Your task to perform on an android device: Open calendar and show me the third week of next month Image 0: 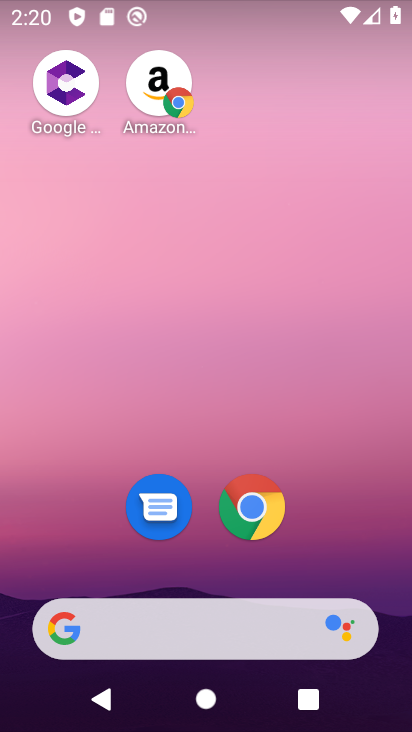
Step 0: drag from (227, 571) to (249, 105)
Your task to perform on an android device: Open calendar and show me the third week of next month Image 1: 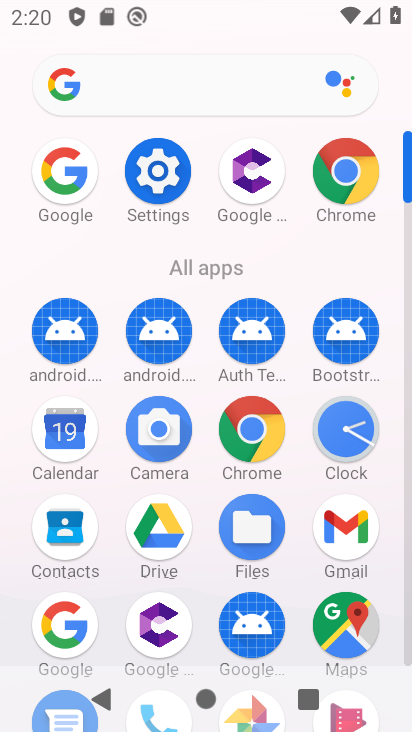
Step 1: click (74, 443)
Your task to perform on an android device: Open calendar and show me the third week of next month Image 2: 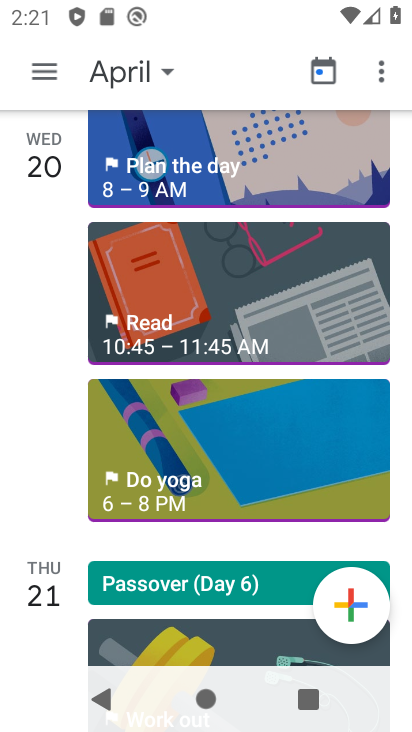
Step 2: click (133, 73)
Your task to perform on an android device: Open calendar and show me the third week of next month Image 3: 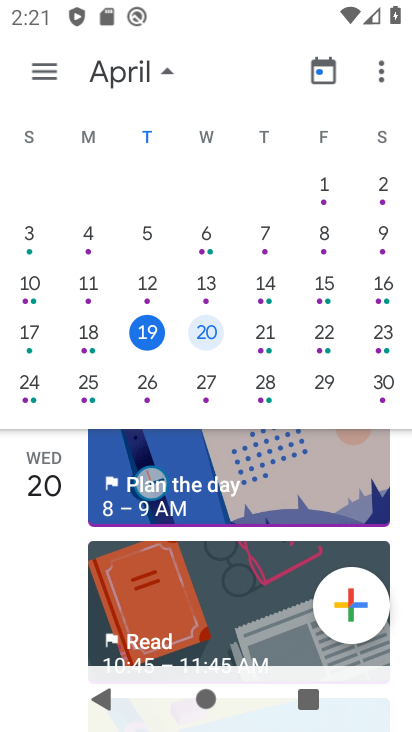
Step 3: drag from (395, 275) to (9, 238)
Your task to perform on an android device: Open calendar and show me the third week of next month Image 4: 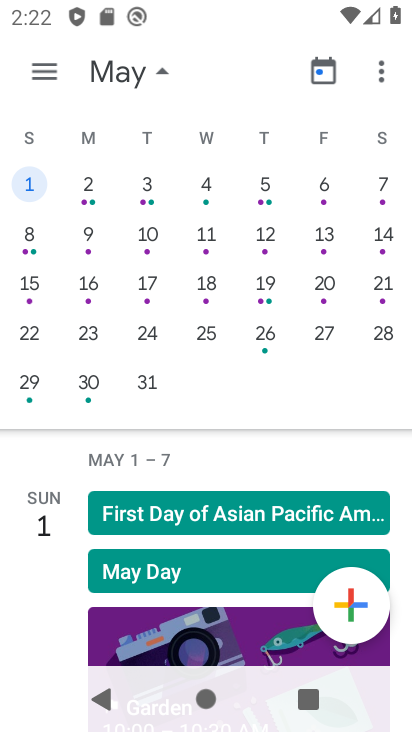
Step 4: click (53, 77)
Your task to perform on an android device: Open calendar and show me the third week of next month Image 5: 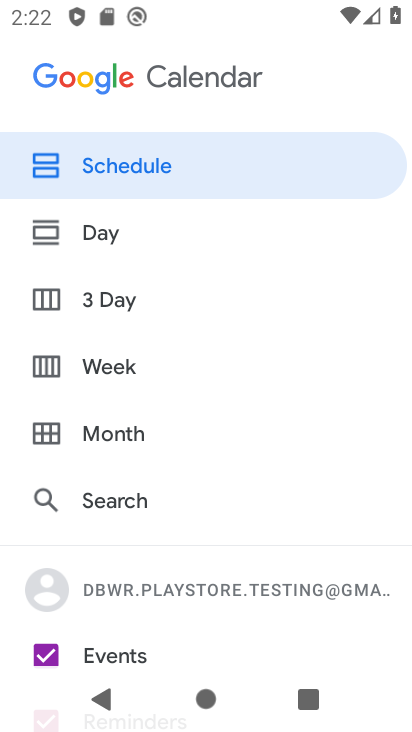
Step 5: click (134, 374)
Your task to perform on an android device: Open calendar and show me the third week of next month Image 6: 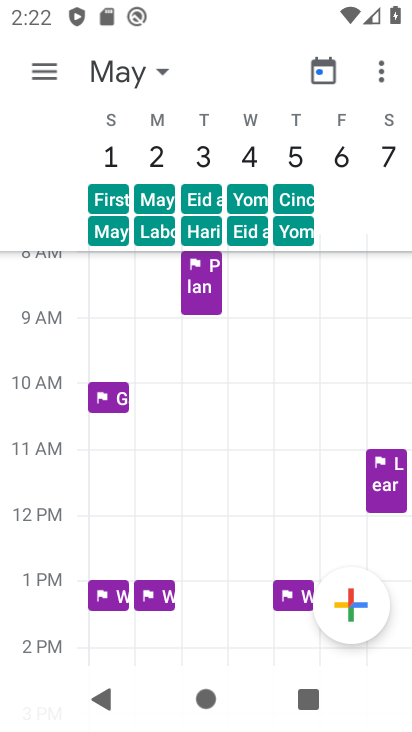
Step 6: task complete